Your task to perform on an android device: Show me productivity apps on the Play Store Image 0: 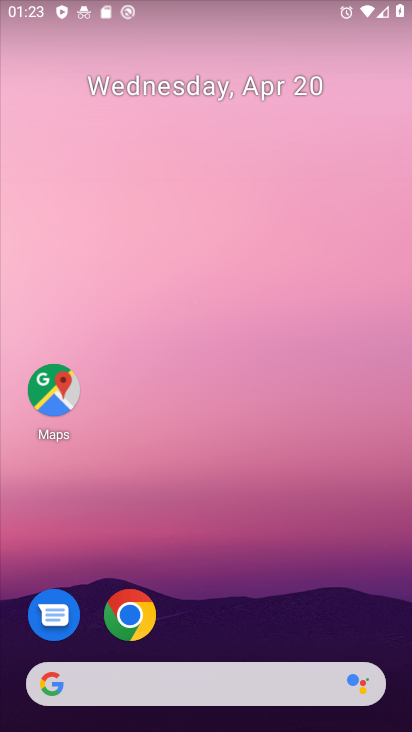
Step 0: drag from (367, 597) to (292, 20)
Your task to perform on an android device: Show me productivity apps on the Play Store Image 1: 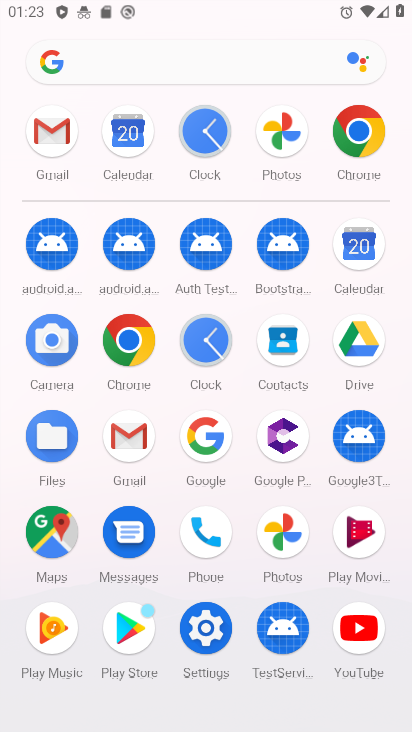
Step 1: click (125, 616)
Your task to perform on an android device: Show me productivity apps on the Play Store Image 2: 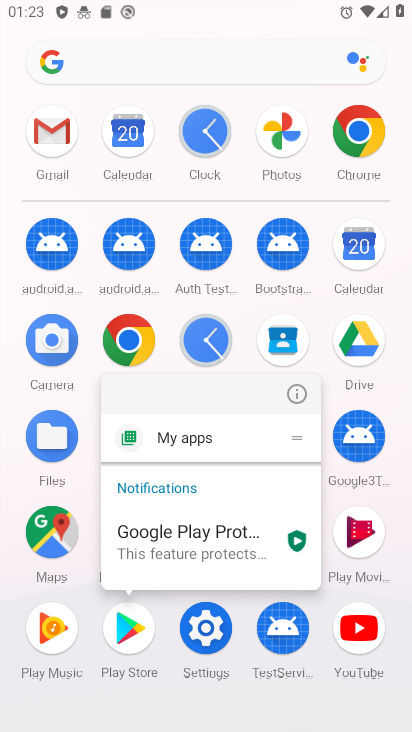
Step 2: click (125, 616)
Your task to perform on an android device: Show me productivity apps on the Play Store Image 3: 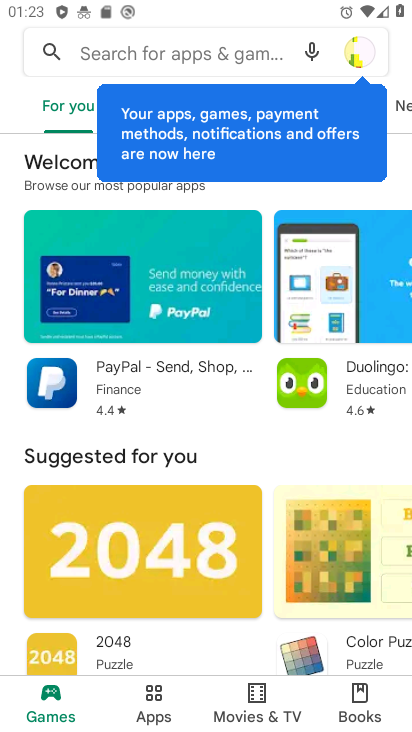
Step 3: click (232, 53)
Your task to perform on an android device: Show me productivity apps on the Play Store Image 4: 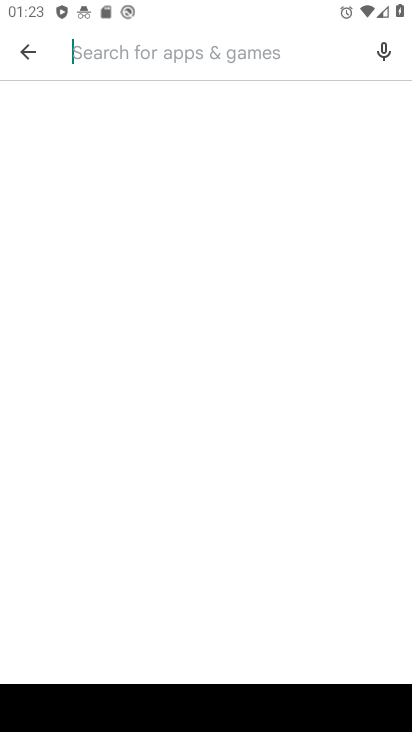
Step 4: type "productivity apps"
Your task to perform on an android device: Show me productivity apps on the Play Store Image 5: 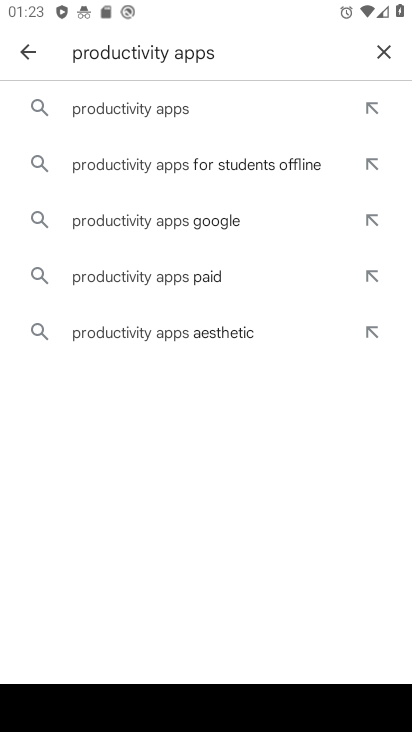
Step 5: click (137, 108)
Your task to perform on an android device: Show me productivity apps on the Play Store Image 6: 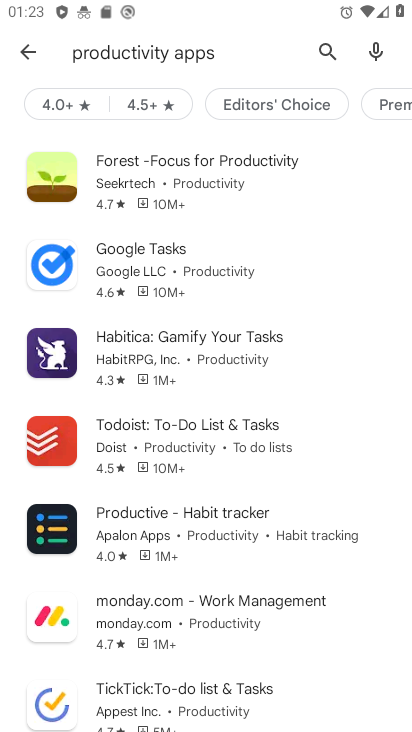
Step 6: task complete